Your task to perform on an android device: check data usage Image 0: 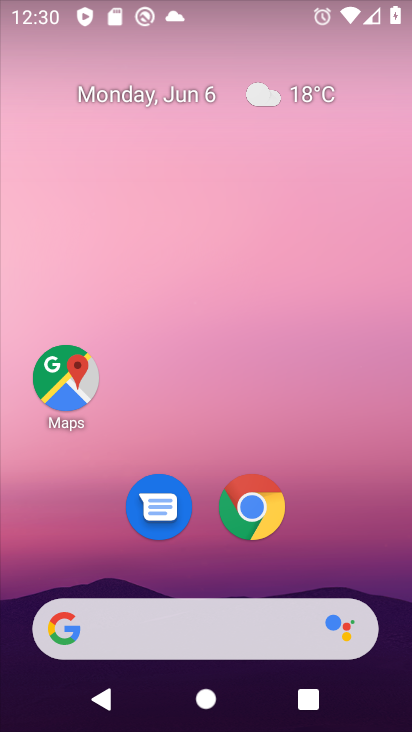
Step 0: drag from (228, 453) to (294, 12)
Your task to perform on an android device: check data usage Image 1: 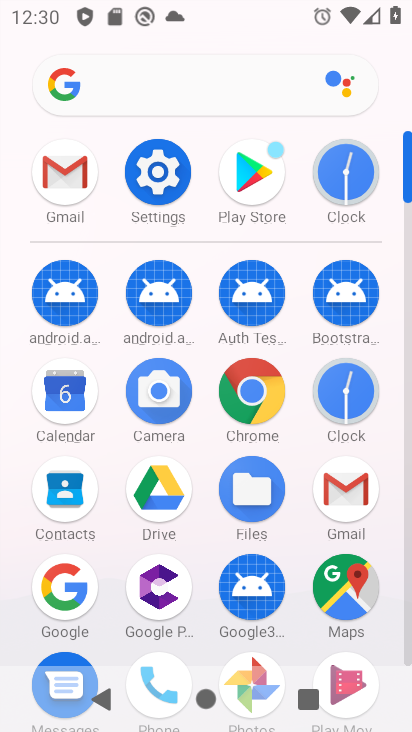
Step 1: click (185, 165)
Your task to perform on an android device: check data usage Image 2: 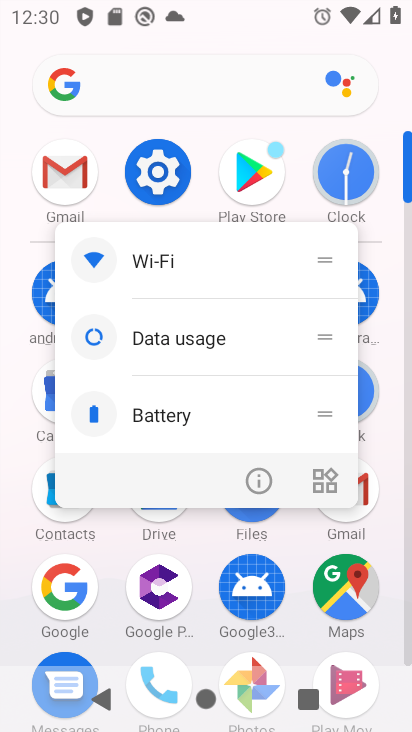
Step 2: click (182, 166)
Your task to perform on an android device: check data usage Image 3: 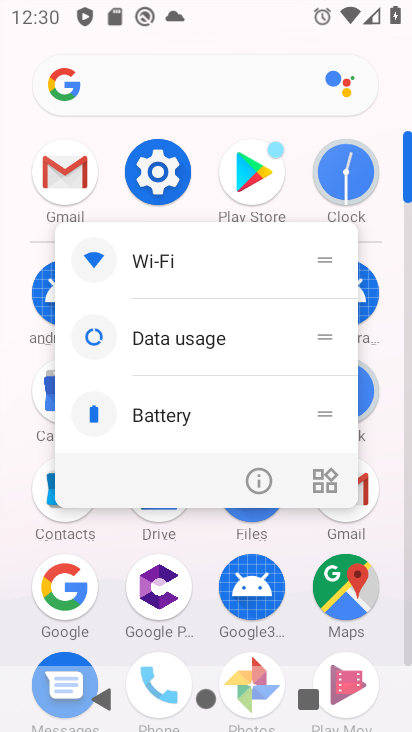
Step 3: click (144, 194)
Your task to perform on an android device: check data usage Image 4: 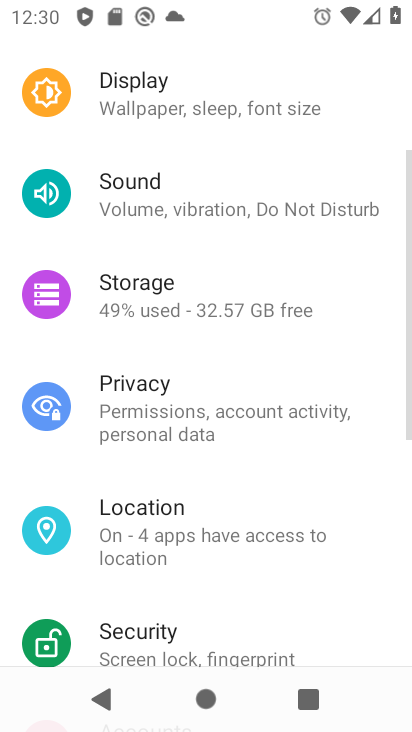
Step 4: drag from (156, 179) to (175, 511)
Your task to perform on an android device: check data usage Image 5: 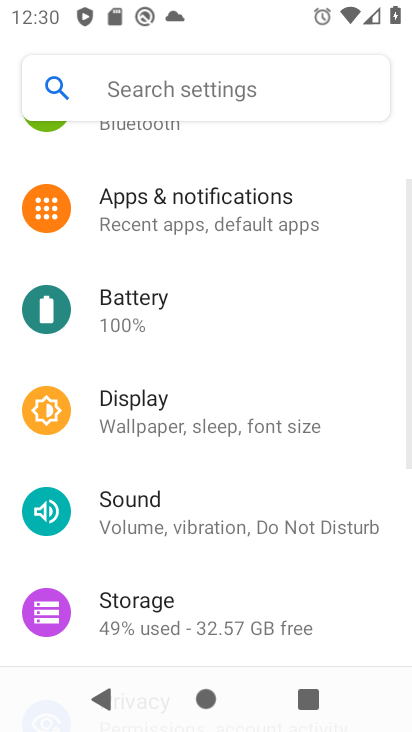
Step 5: drag from (229, 148) to (244, 563)
Your task to perform on an android device: check data usage Image 6: 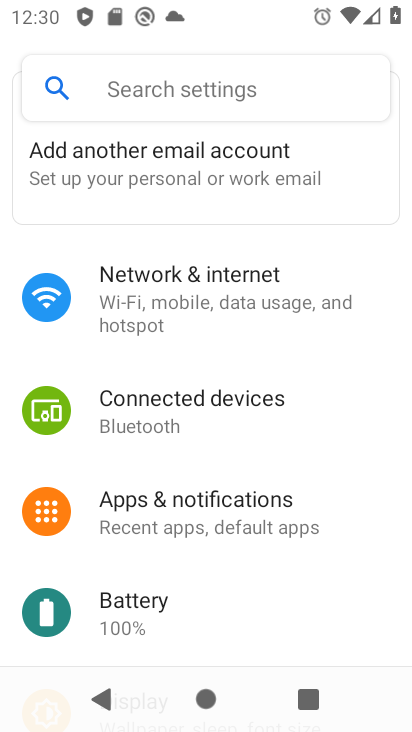
Step 6: drag from (262, 261) to (260, 377)
Your task to perform on an android device: check data usage Image 7: 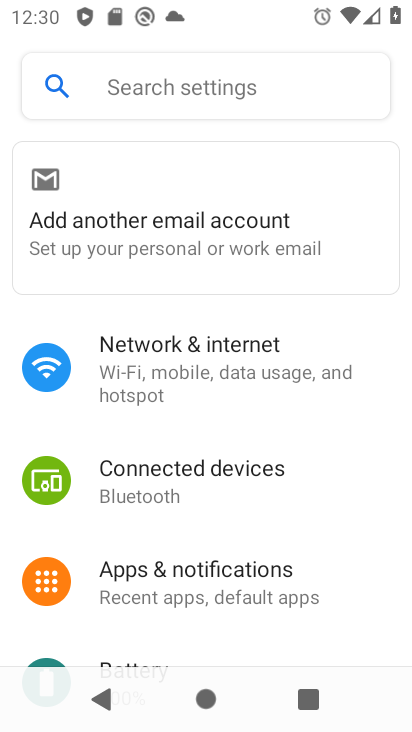
Step 7: click (210, 364)
Your task to perform on an android device: check data usage Image 8: 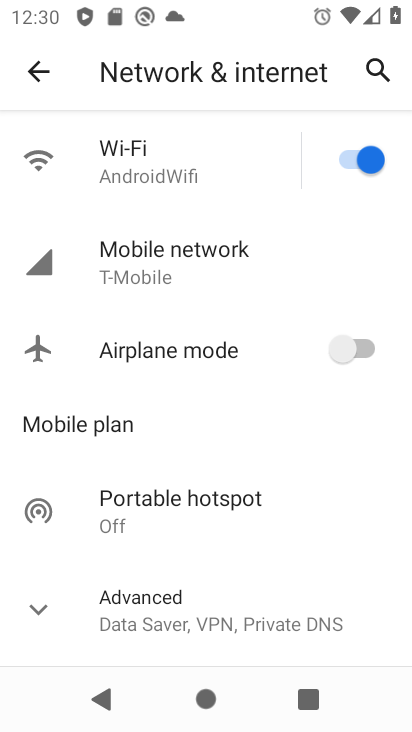
Step 8: click (170, 250)
Your task to perform on an android device: check data usage Image 9: 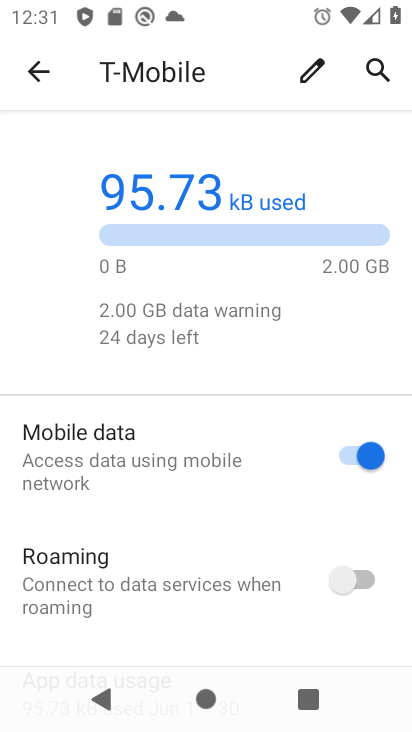
Step 9: drag from (201, 553) to (248, 255)
Your task to perform on an android device: check data usage Image 10: 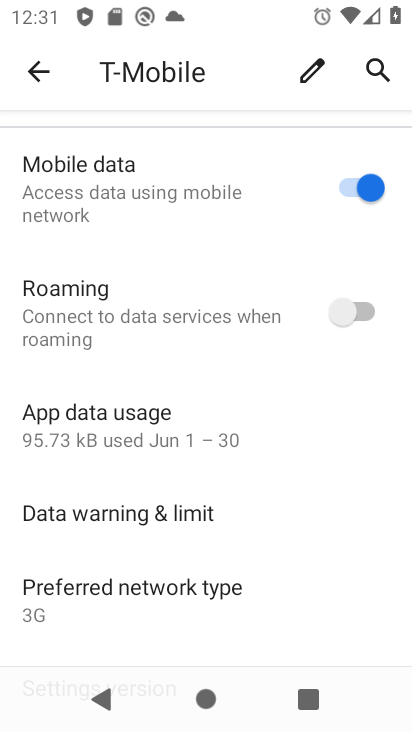
Step 10: click (176, 441)
Your task to perform on an android device: check data usage Image 11: 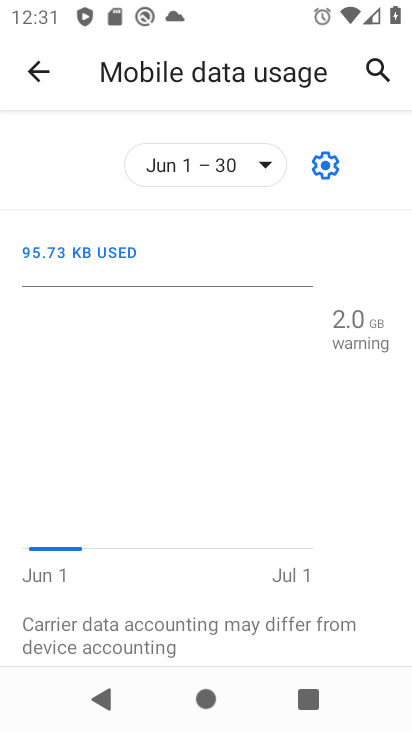
Step 11: task complete